Your task to perform on an android device: manage bookmarks in the chrome app Image 0: 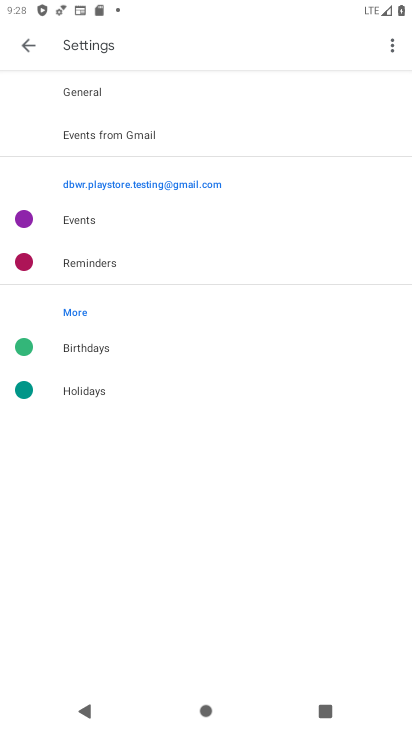
Step 0: press home button
Your task to perform on an android device: manage bookmarks in the chrome app Image 1: 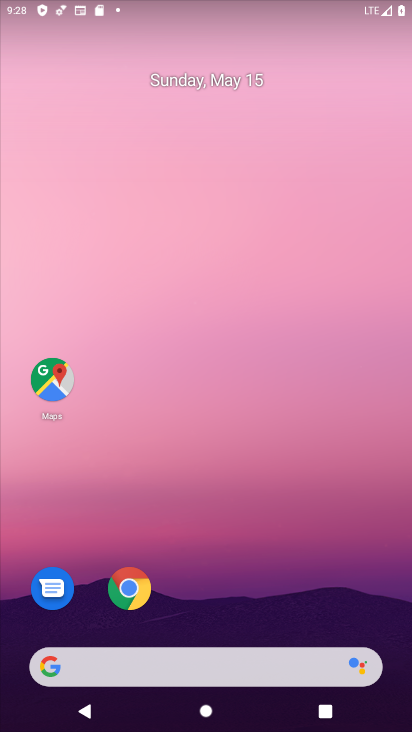
Step 1: click (125, 579)
Your task to perform on an android device: manage bookmarks in the chrome app Image 2: 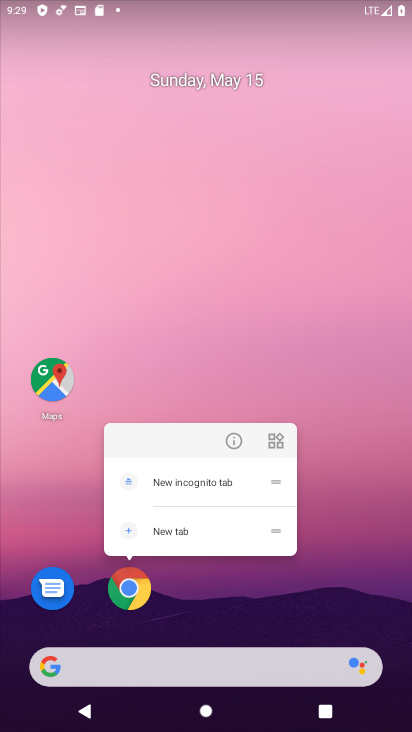
Step 2: click (125, 577)
Your task to perform on an android device: manage bookmarks in the chrome app Image 3: 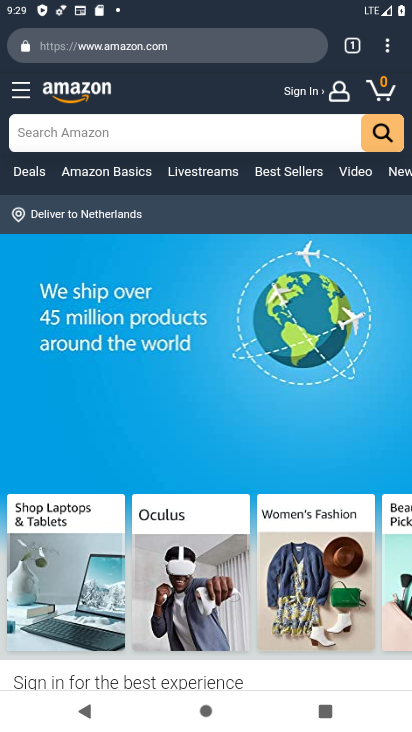
Step 3: click (390, 47)
Your task to perform on an android device: manage bookmarks in the chrome app Image 4: 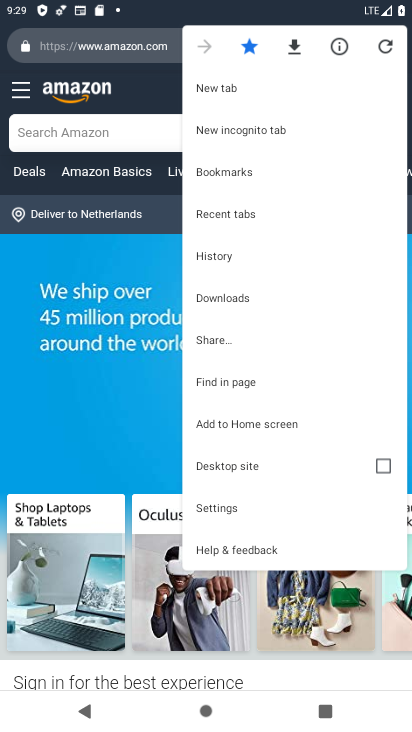
Step 4: click (270, 172)
Your task to perform on an android device: manage bookmarks in the chrome app Image 5: 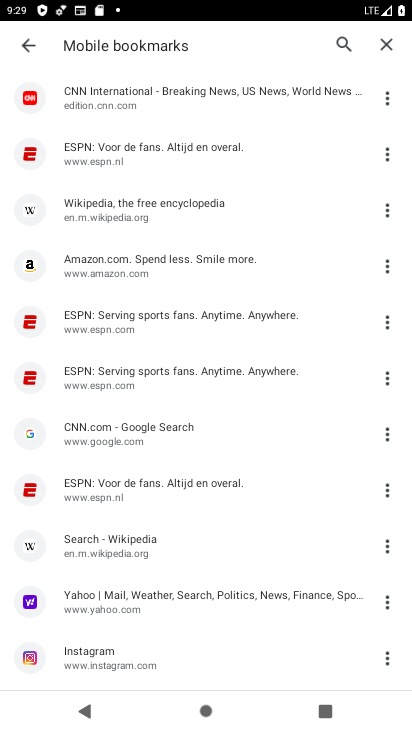
Step 5: click (389, 316)
Your task to perform on an android device: manage bookmarks in the chrome app Image 6: 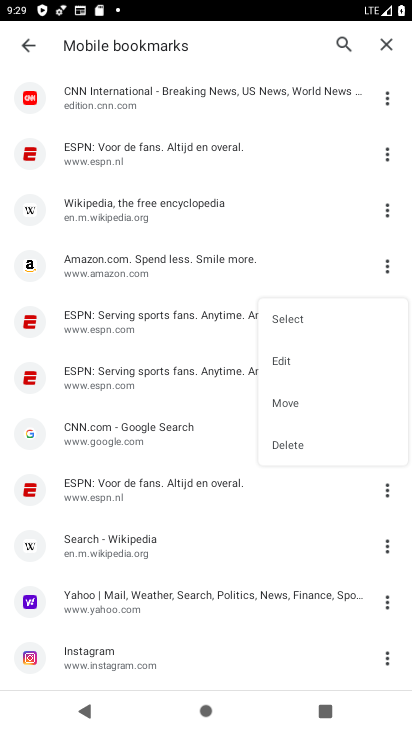
Step 6: click (307, 438)
Your task to perform on an android device: manage bookmarks in the chrome app Image 7: 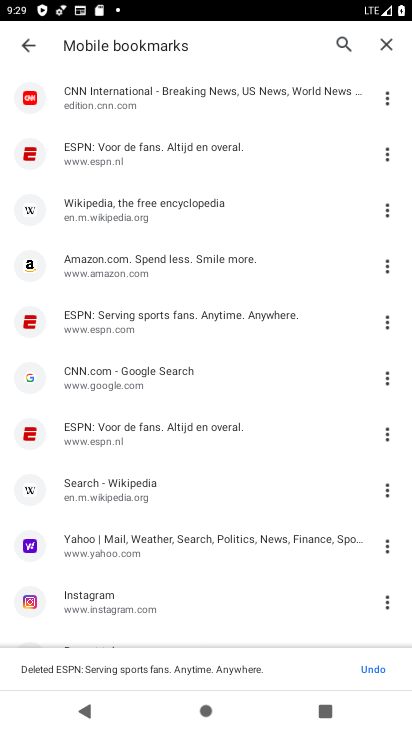
Step 7: click (306, 437)
Your task to perform on an android device: manage bookmarks in the chrome app Image 8: 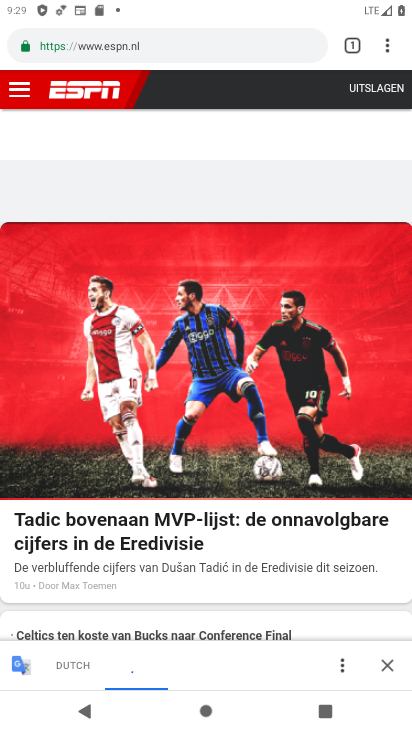
Step 8: task complete